Your task to perform on an android device: Clear the shopping cart on amazon. Search for logitech g pro on amazon, select the first entry, add it to the cart, then select checkout. Image 0: 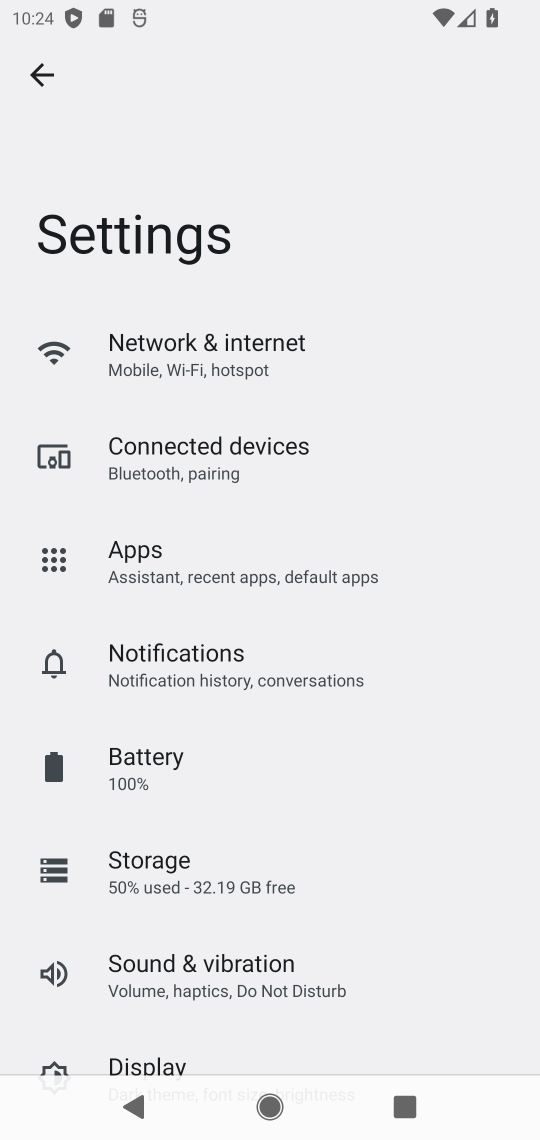
Step 0: press home button
Your task to perform on an android device: Clear the shopping cart on amazon. Search for logitech g pro on amazon, select the first entry, add it to the cart, then select checkout. Image 1: 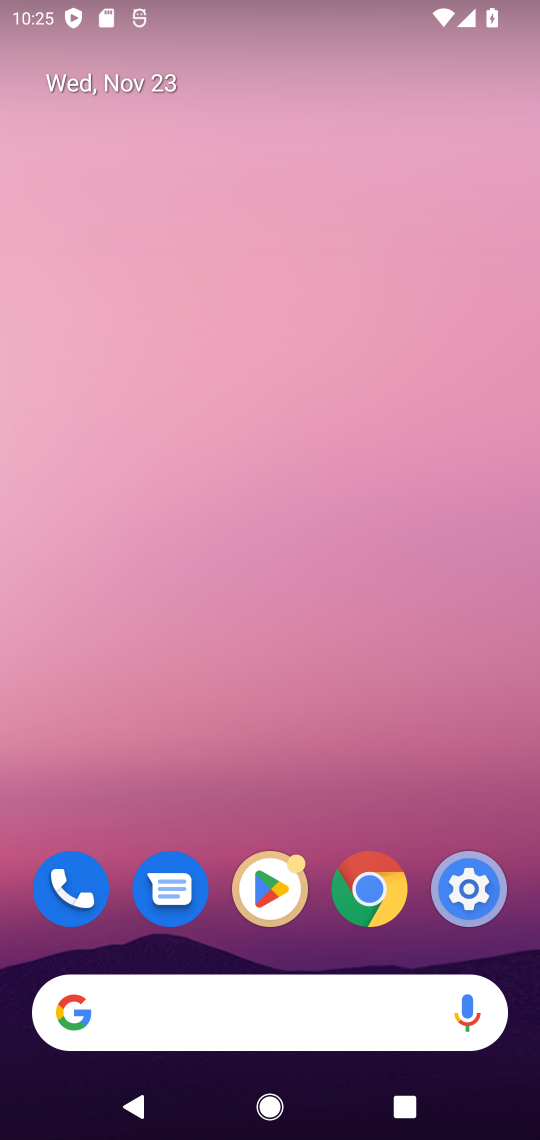
Step 1: click (371, 899)
Your task to perform on an android device: Clear the shopping cart on amazon. Search for logitech g pro on amazon, select the first entry, add it to the cart, then select checkout. Image 2: 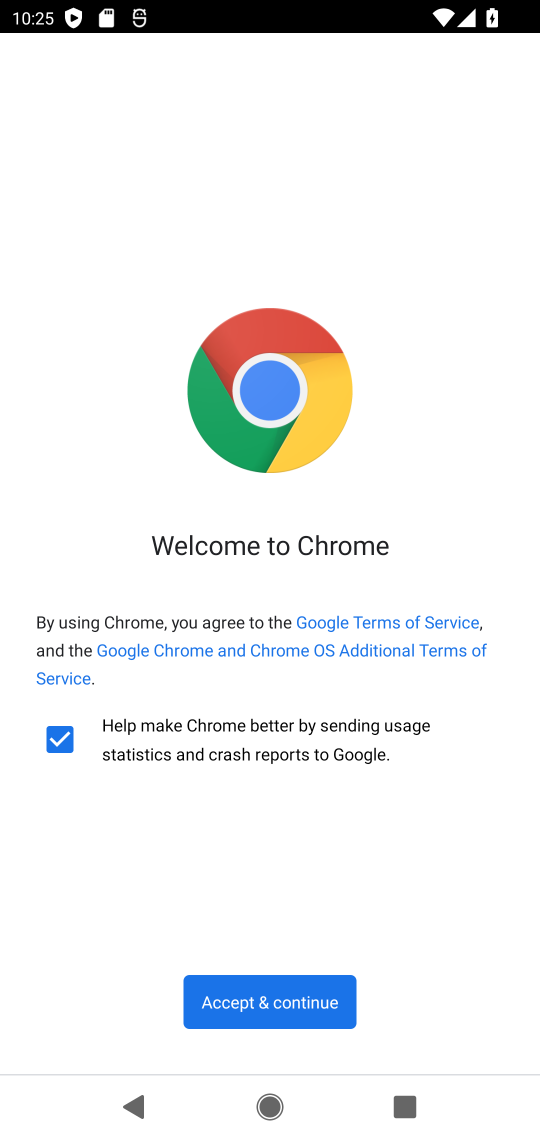
Step 2: click (277, 996)
Your task to perform on an android device: Clear the shopping cart on amazon. Search for logitech g pro on amazon, select the first entry, add it to the cart, then select checkout. Image 3: 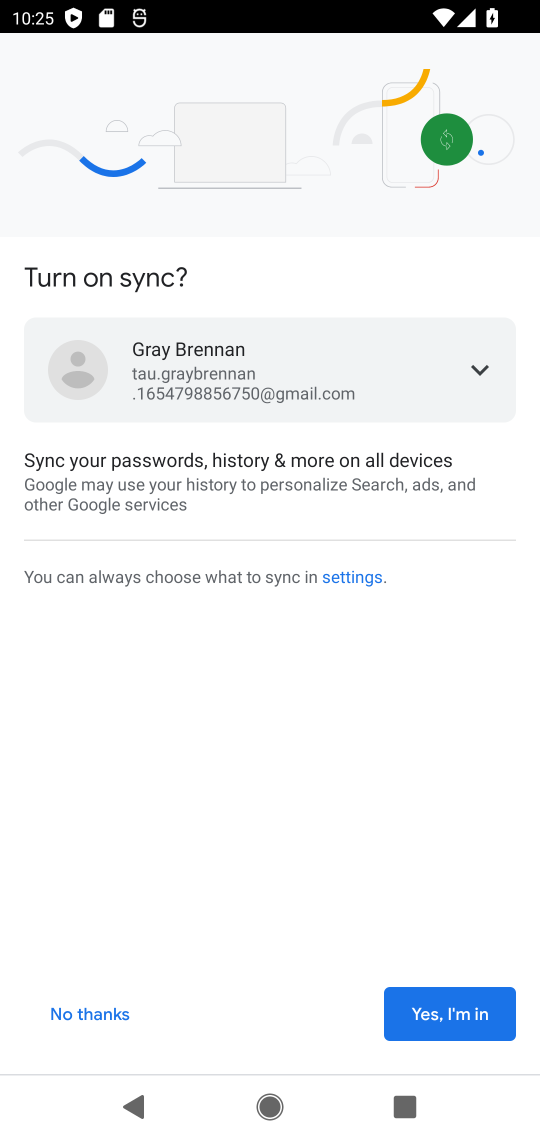
Step 3: click (83, 1015)
Your task to perform on an android device: Clear the shopping cart on amazon. Search for logitech g pro on amazon, select the first entry, add it to the cart, then select checkout. Image 4: 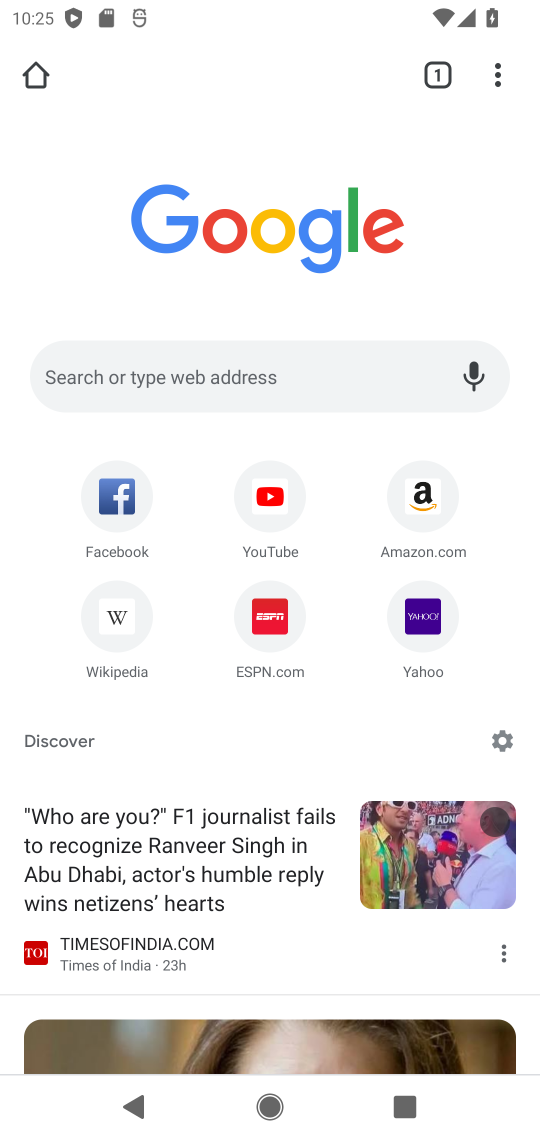
Step 4: click (425, 501)
Your task to perform on an android device: Clear the shopping cart on amazon. Search for logitech g pro on amazon, select the first entry, add it to the cart, then select checkout. Image 5: 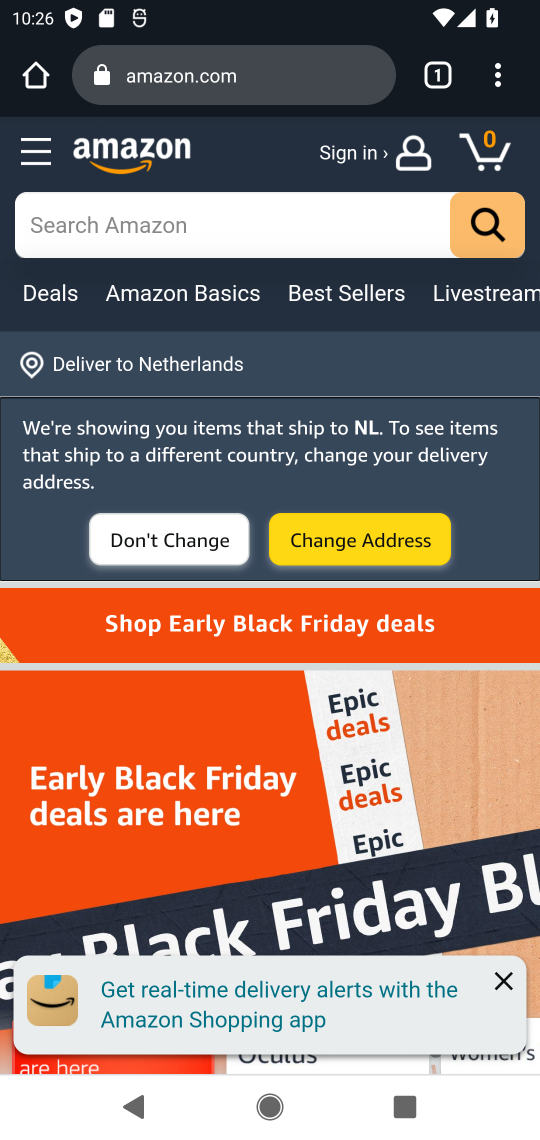
Step 5: click (497, 151)
Your task to perform on an android device: Clear the shopping cart on amazon. Search for logitech g pro on amazon, select the first entry, add it to the cart, then select checkout. Image 6: 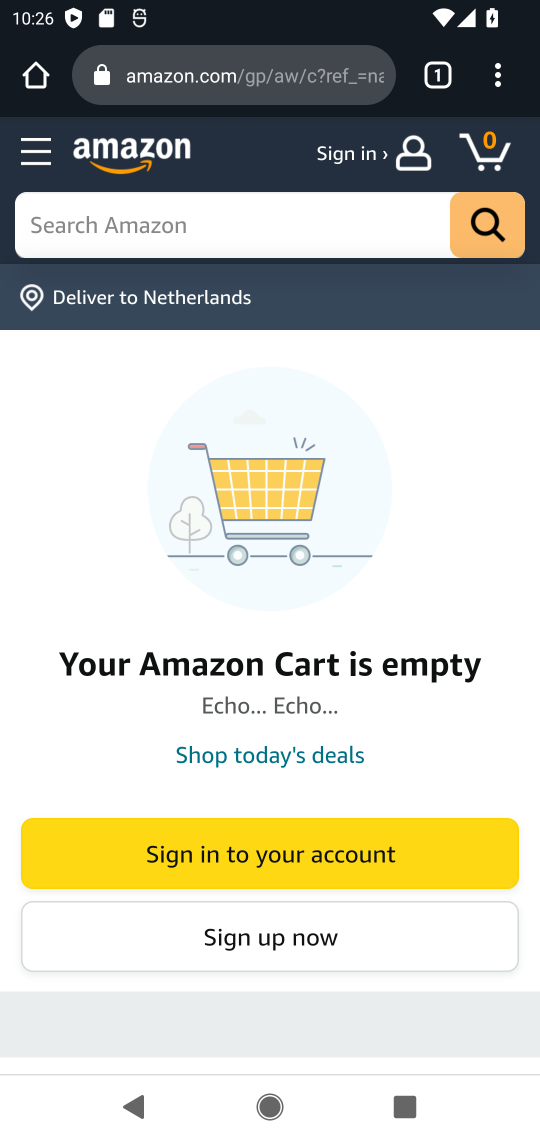
Step 6: click (82, 219)
Your task to perform on an android device: Clear the shopping cart on amazon. Search for logitech g pro on amazon, select the first entry, add it to the cart, then select checkout. Image 7: 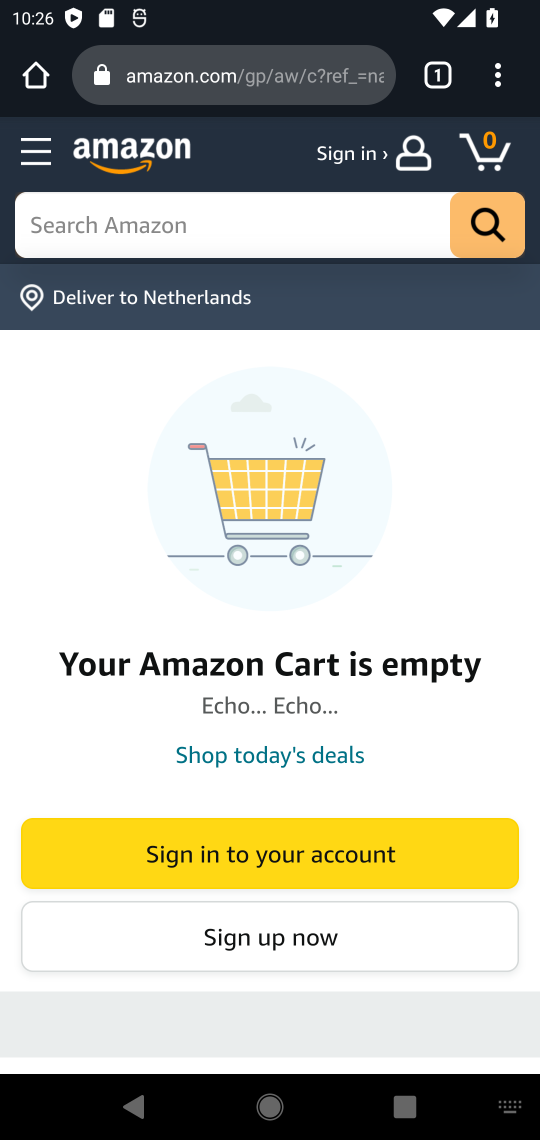
Step 7: type "logitech g pro"
Your task to perform on an android device: Clear the shopping cart on amazon. Search for logitech g pro on amazon, select the first entry, add it to the cart, then select checkout. Image 8: 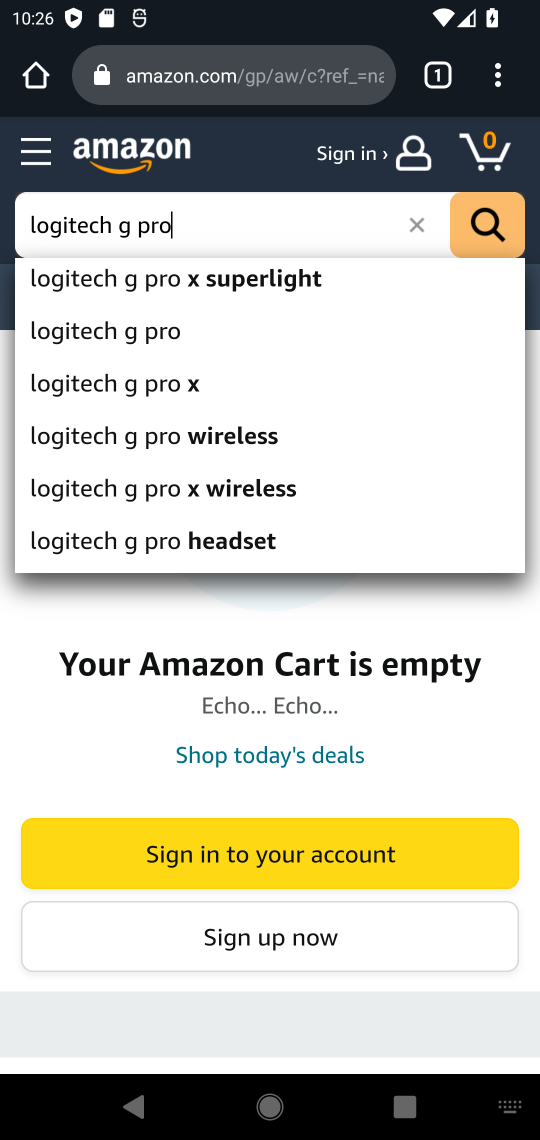
Step 8: click (134, 339)
Your task to perform on an android device: Clear the shopping cart on amazon. Search for logitech g pro on amazon, select the first entry, add it to the cart, then select checkout. Image 9: 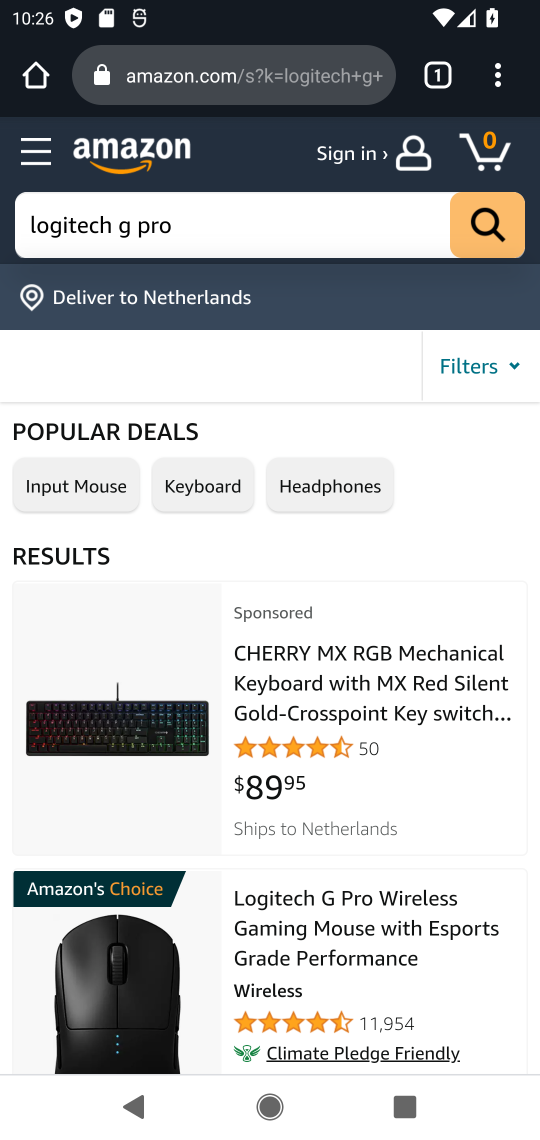
Step 9: task complete